Your task to perform on an android device: Open CNN.com Image 0: 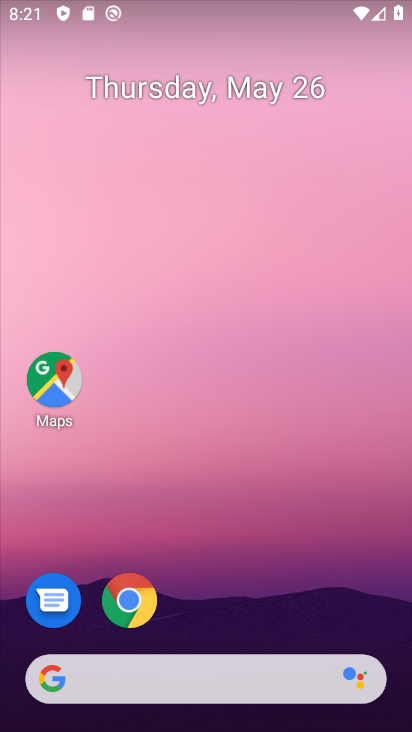
Step 0: click (170, 664)
Your task to perform on an android device: Open CNN.com Image 1: 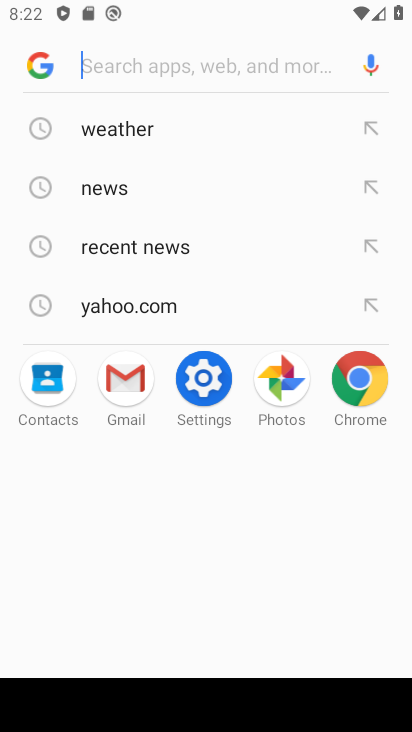
Step 1: type "cnn.com"
Your task to perform on an android device: Open CNN.com Image 2: 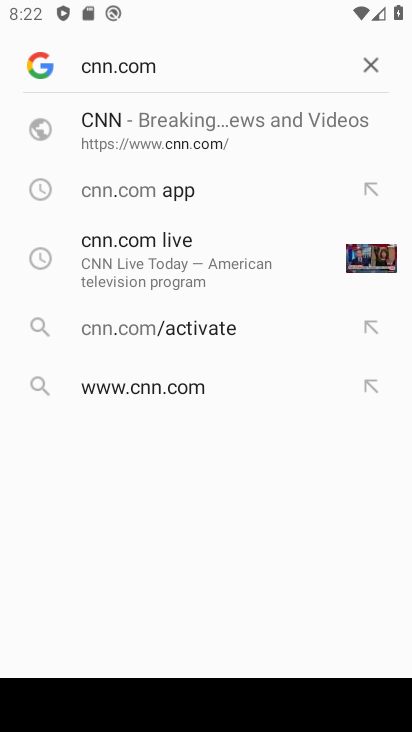
Step 2: click (333, 120)
Your task to perform on an android device: Open CNN.com Image 3: 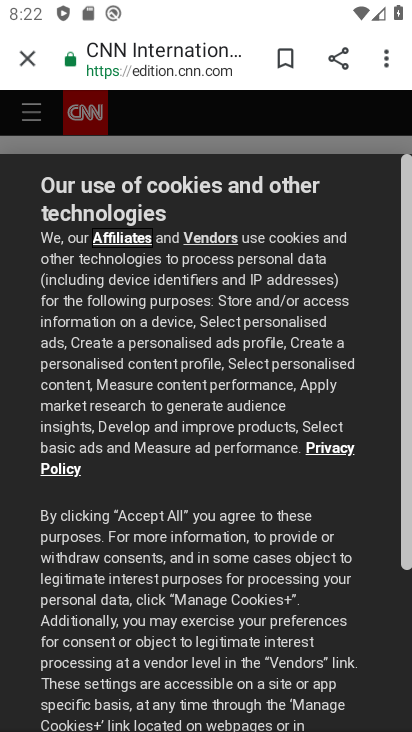
Step 3: task complete